Your task to perform on an android device: turn on javascript in the chrome app Image 0: 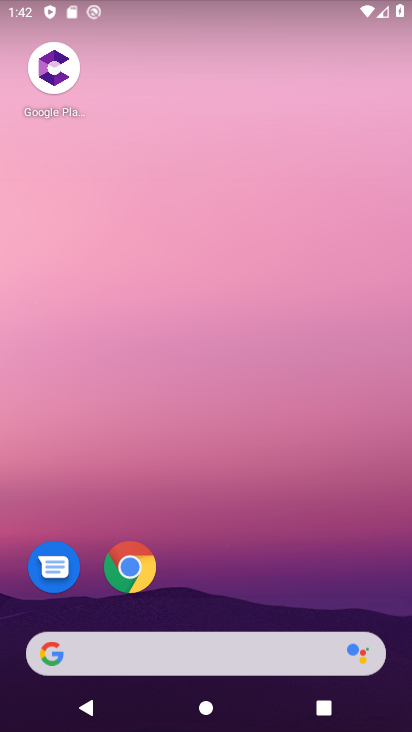
Step 0: drag from (258, 589) to (243, 253)
Your task to perform on an android device: turn on javascript in the chrome app Image 1: 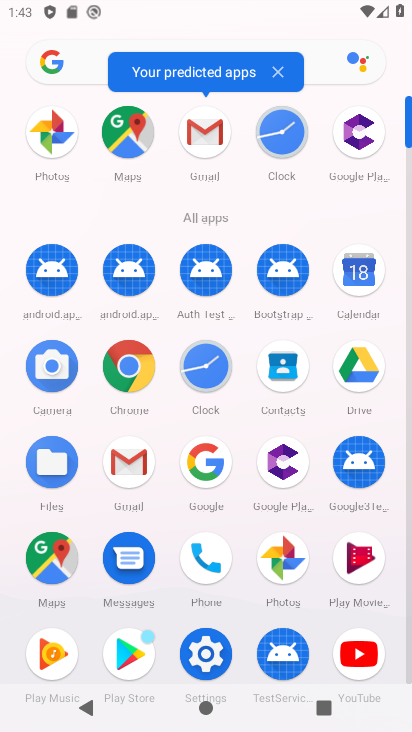
Step 1: click (117, 364)
Your task to perform on an android device: turn on javascript in the chrome app Image 2: 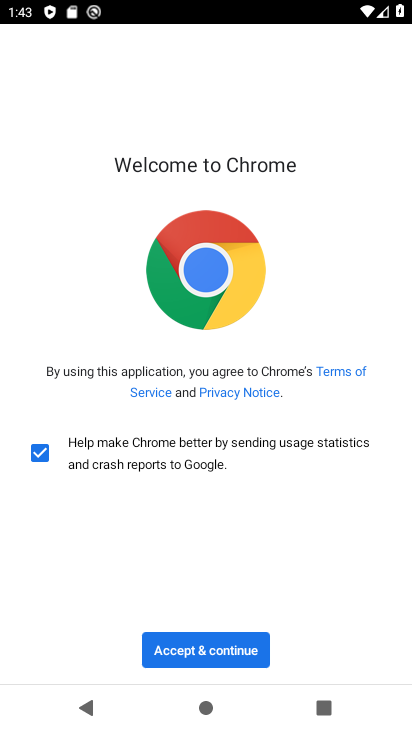
Step 2: click (219, 653)
Your task to perform on an android device: turn on javascript in the chrome app Image 3: 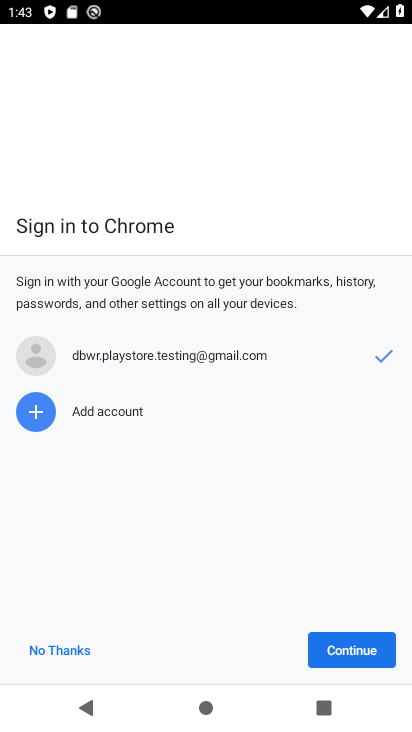
Step 3: click (358, 641)
Your task to perform on an android device: turn on javascript in the chrome app Image 4: 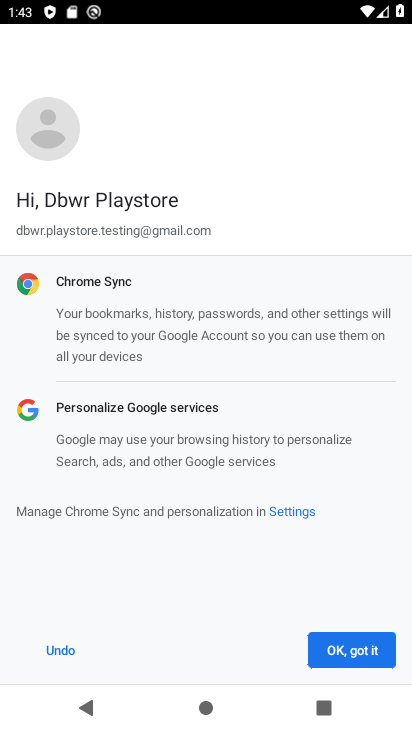
Step 4: click (344, 650)
Your task to perform on an android device: turn on javascript in the chrome app Image 5: 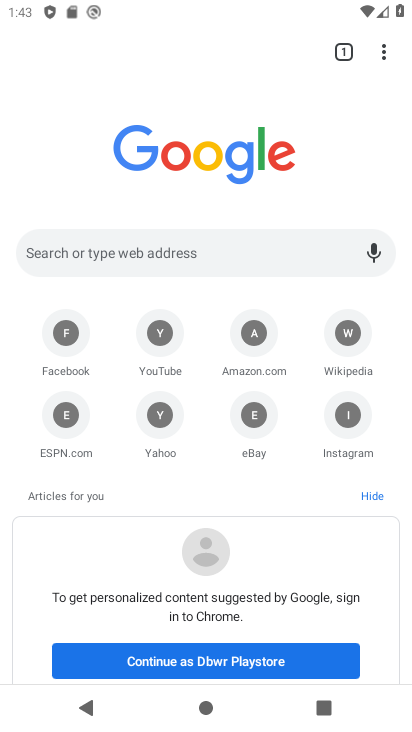
Step 5: click (388, 50)
Your task to perform on an android device: turn on javascript in the chrome app Image 6: 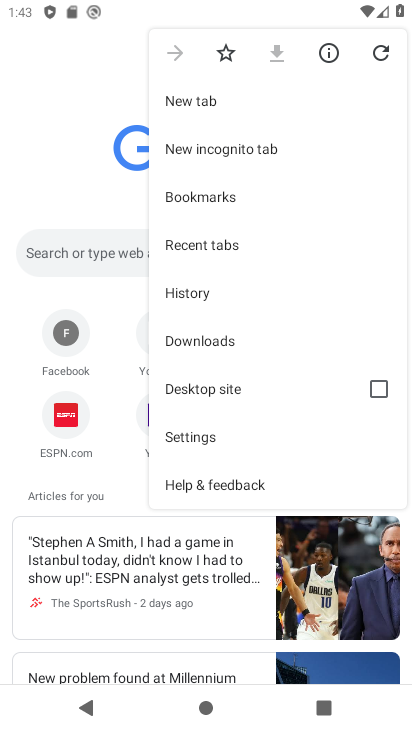
Step 6: click (227, 438)
Your task to perform on an android device: turn on javascript in the chrome app Image 7: 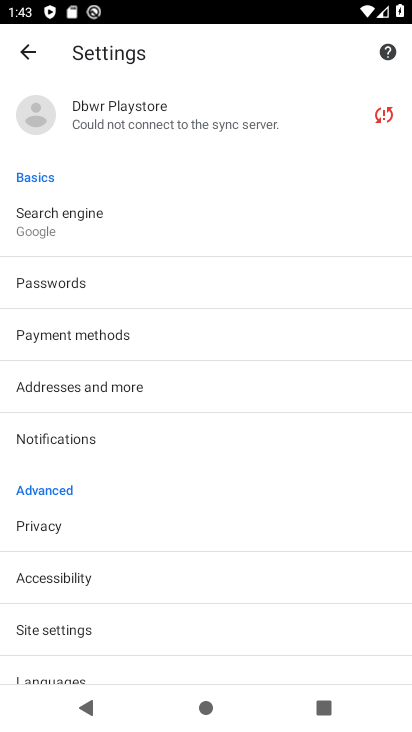
Step 7: drag from (197, 558) to (181, 299)
Your task to perform on an android device: turn on javascript in the chrome app Image 8: 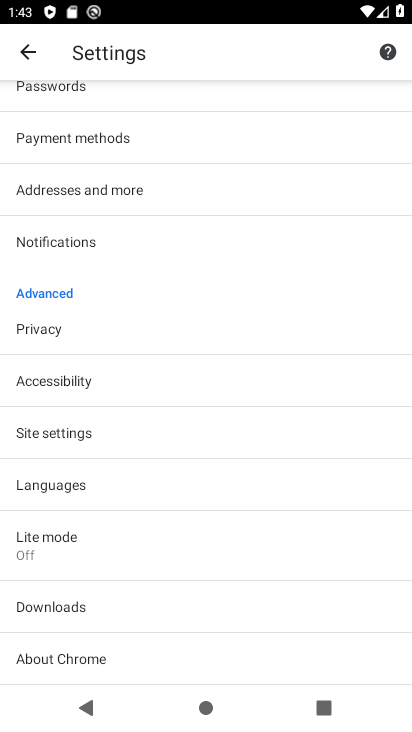
Step 8: click (150, 436)
Your task to perform on an android device: turn on javascript in the chrome app Image 9: 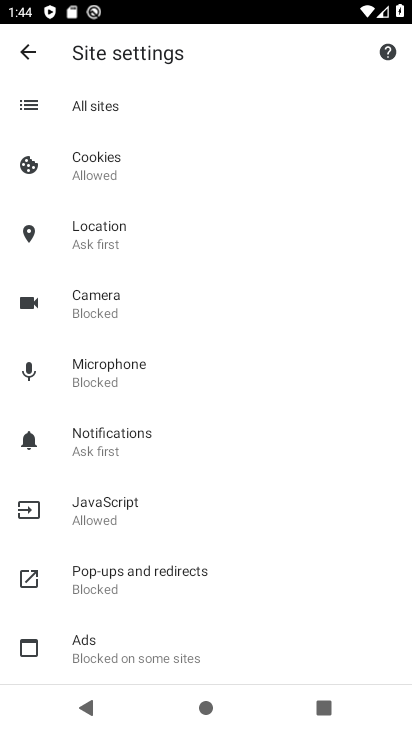
Step 9: click (103, 505)
Your task to perform on an android device: turn on javascript in the chrome app Image 10: 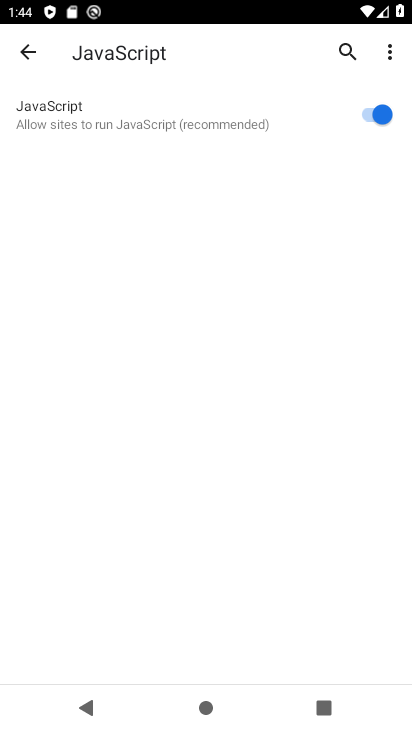
Step 10: task complete